Your task to perform on an android device: See recent photos Image 0: 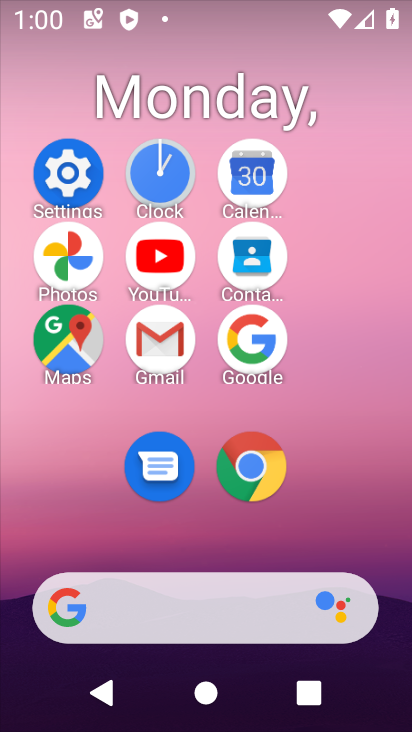
Step 0: click (78, 245)
Your task to perform on an android device: See recent photos Image 1: 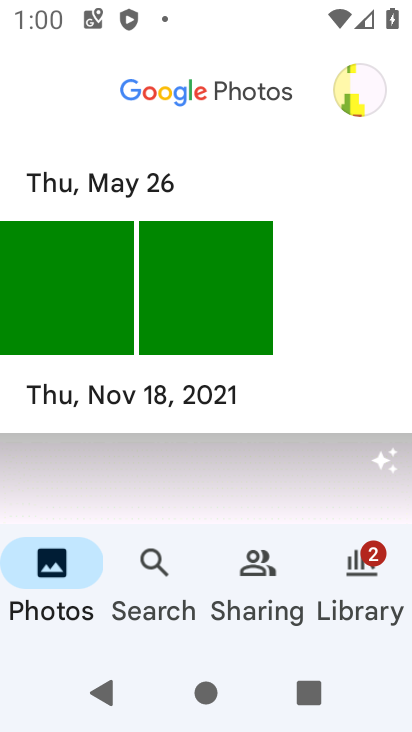
Step 1: click (125, 320)
Your task to perform on an android device: See recent photos Image 2: 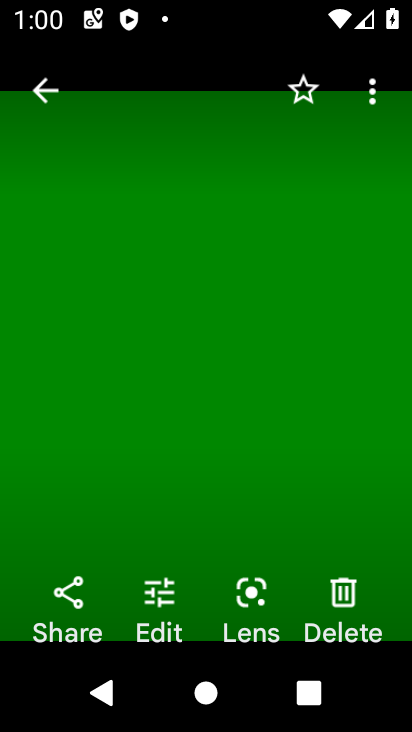
Step 2: task complete